Your task to perform on an android device: Go to Maps Image 0: 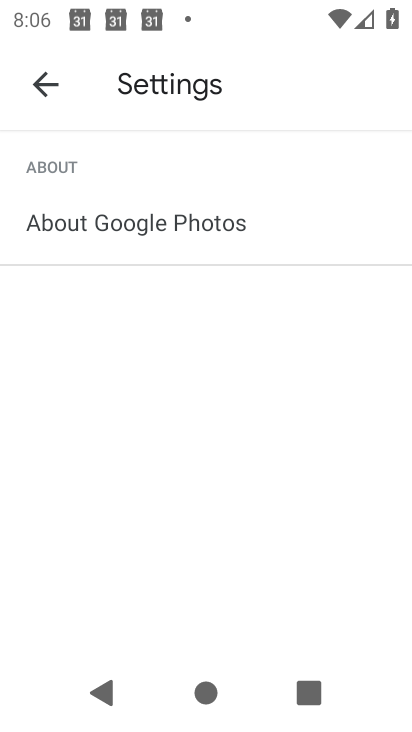
Step 0: press home button
Your task to perform on an android device: Go to Maps Image 1: 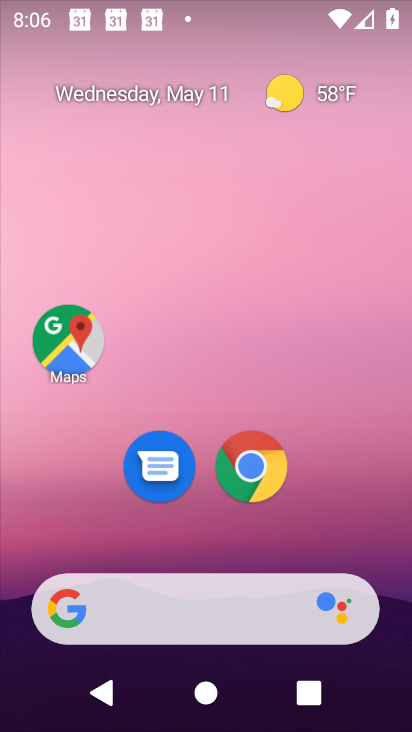
Step 1: drag from (206, 568) to (265, 95)
Your task to perform on an android device: Go to Maps Image 2: 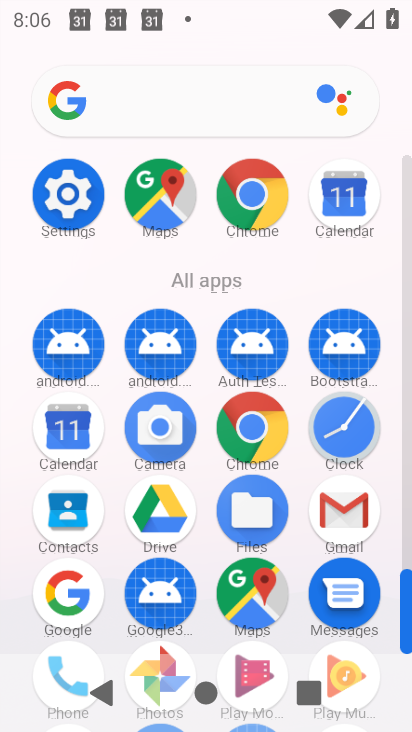
Step 2: click (241, 592)
Your task to perform on an android device: Go to Maps Image 3: 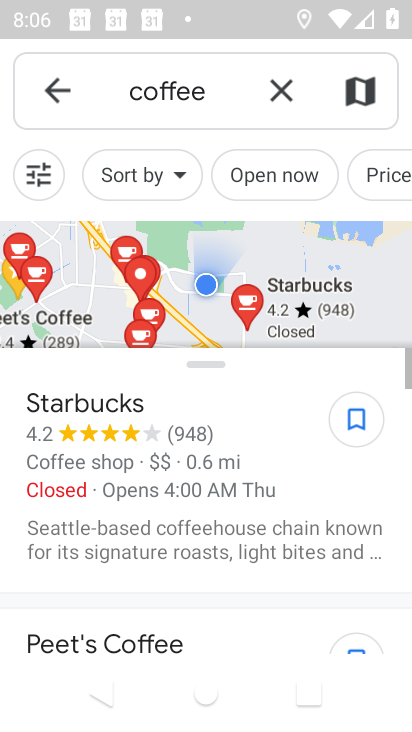
Step 3: click (59, 93)
Your task to perform on an android device: Go to Maps Image 4: 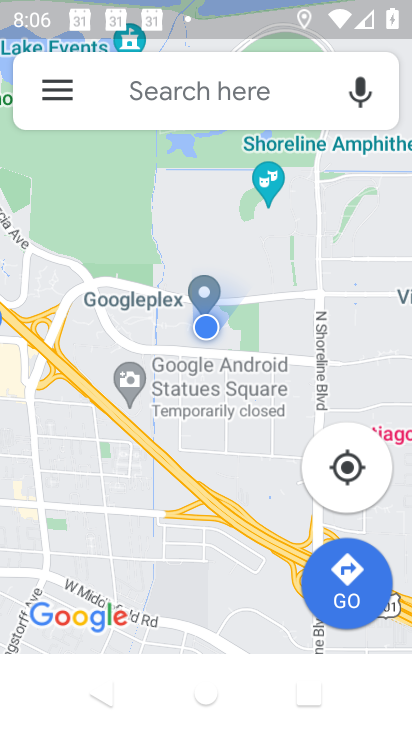
Step 4: task complete